Your task to perform on an android device: change alarm snooze length Image 0: 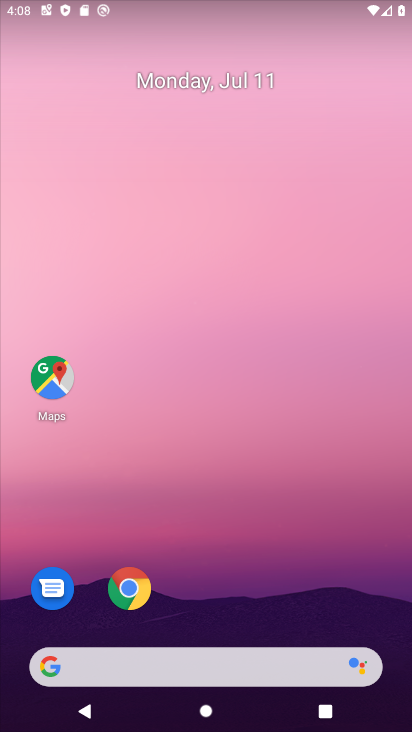
Step 0: drag from (373, 604) to (360, 157)
Your task to perform on an android device: change alarm snooze length Image 1: 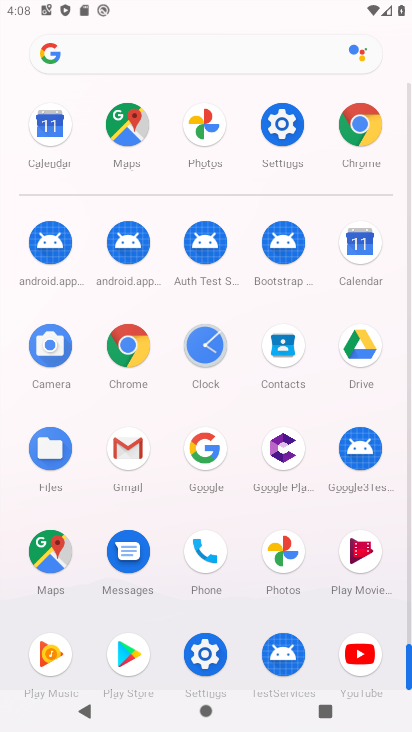
Step 1: click (209, 345)
Your task to perform on an android device: change alarm snooze length Image 2: 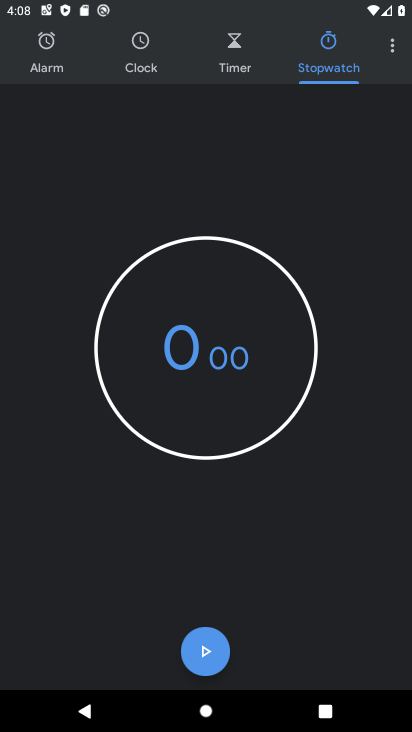
Step 2: click (394, 54)
Your task to perform on an android device: change alarm snooze length Image 3: 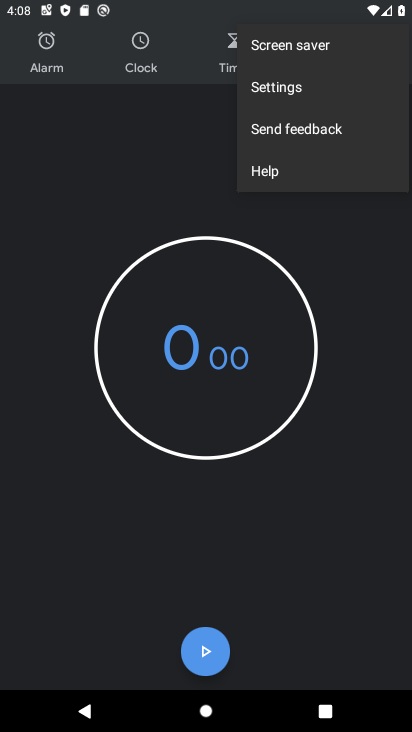
Step 3: click (314, 85)
Your task to perform on an android device: change alarm snooze length Image 4: 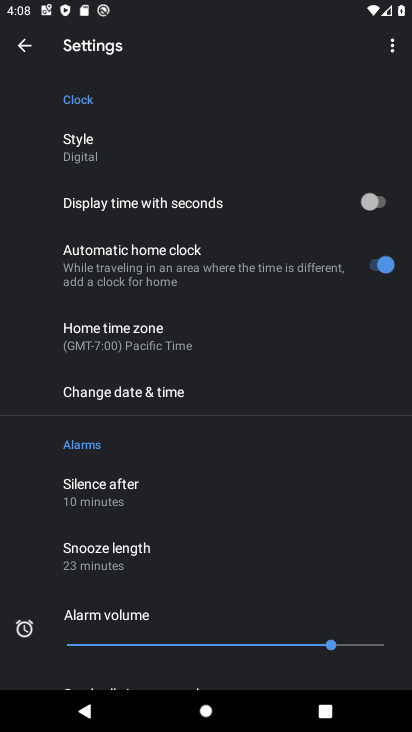
Step 4: drag from (309, 513) to (310, 396)
Your task to perform on an android device: change alarm snooze length Image 5: 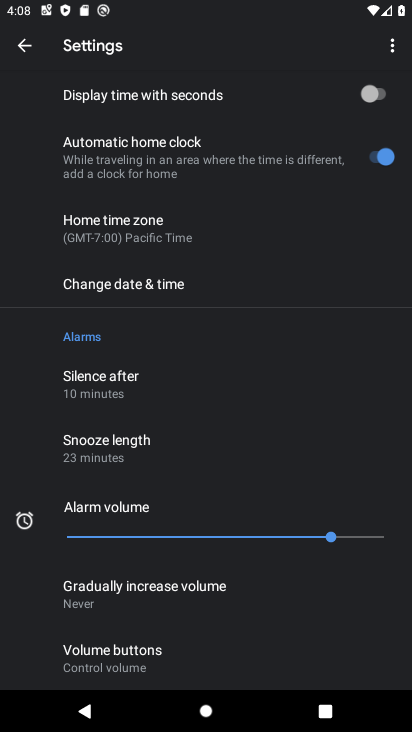
Step 5: drag from (290, 567) to (291, 422)
Your task to perform on an android device: change alarm snooze length Image 6: 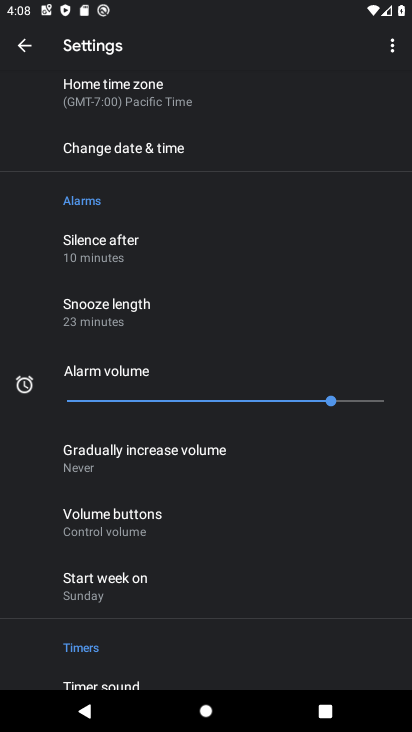
Step 6: drag from (314, 540) to (311, 386)
Your task to perform on an android device: change alarm snooze length Image 7: 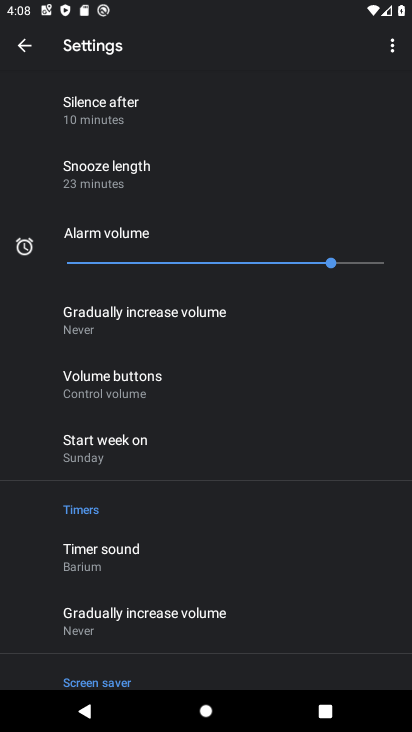
Step 7: drag from (348, 557) to (342, 365)
Your task to perform on an android device: change alarm snooze length Image 8: 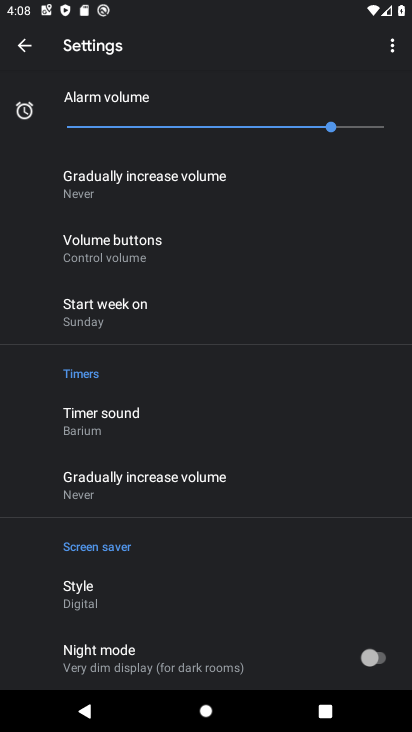
Step 8: drag from (353, 243) to (340, 463)
Your task to perform on an android device: change alarm snooze length Image 9: 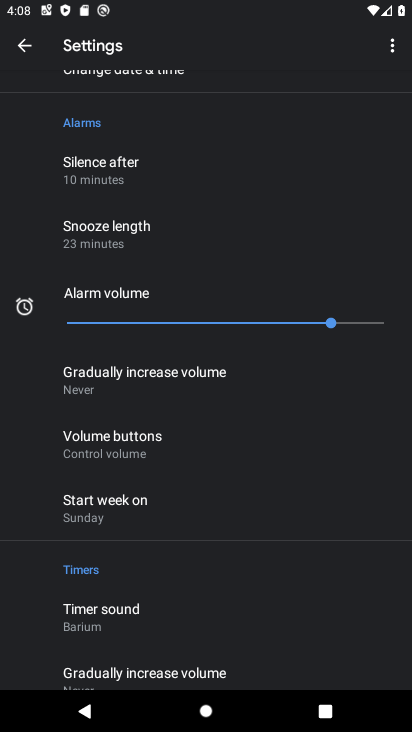
Step 9: drag from (356, 247) to (357, 375)
Your task to perform on an android device: change alarm snooze length Image 10: 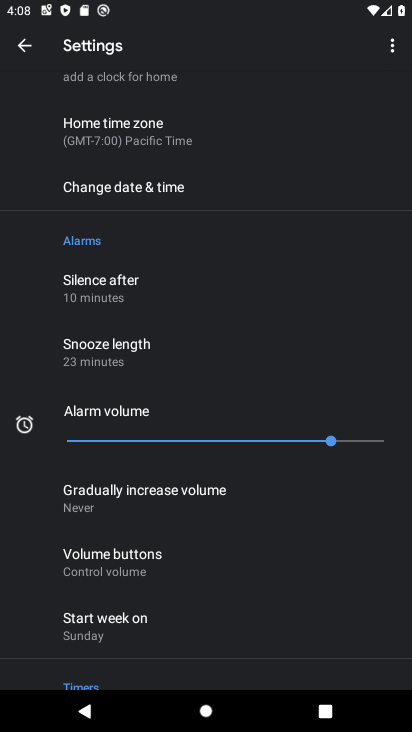
Step 10: drag from (350, 238) to (365, 520)
Your task to perform on an android device: change alarm snooze length Image 11: 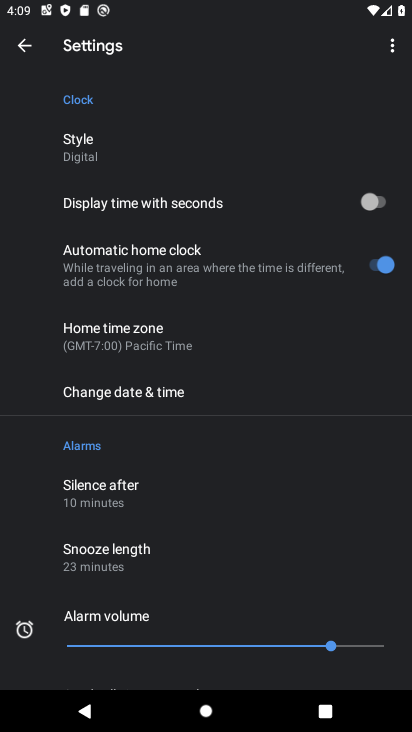
Step 11: click (184, 557)
Your task to perform on an android device: change alarm snooze length Image 12: 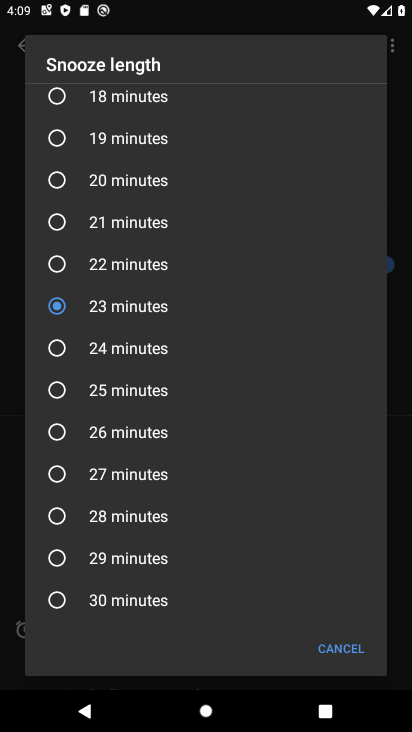
Step 12: click (135, 478)
Your task to perform on an android device: change alarm snooze length Image 13: 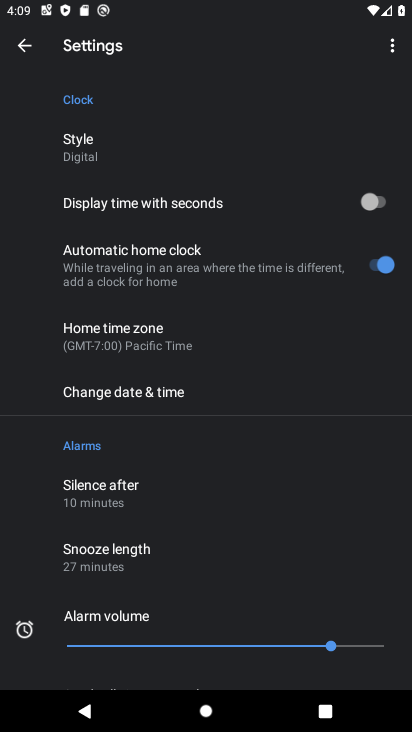
Step 13: task complete